Your task to perform on an android device: Go to Maps Image 0: 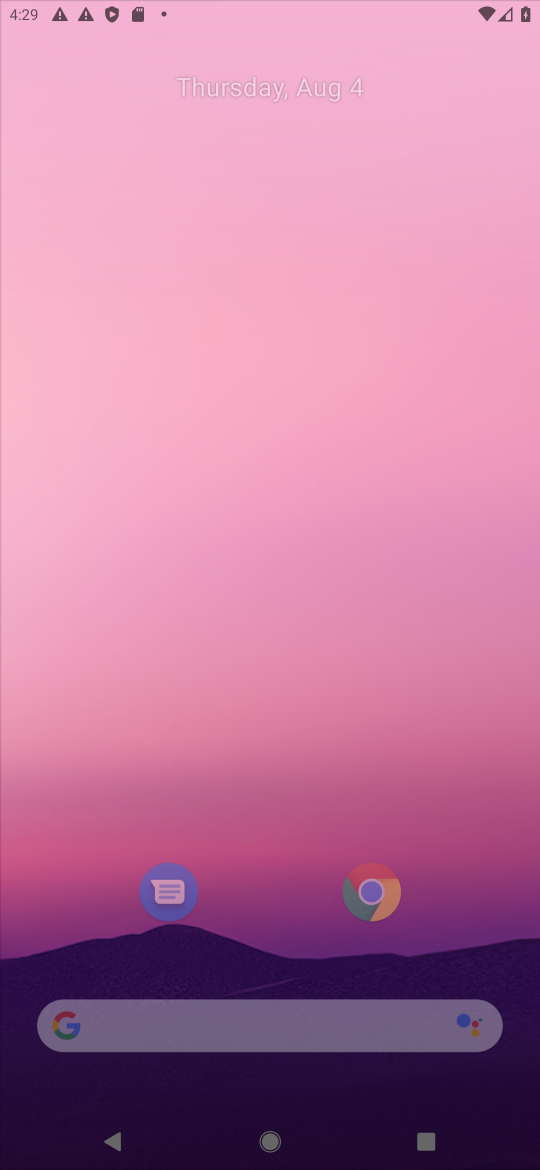
Step 0: press home button
Your task to perform on an android device: Go to Maps Image 1: 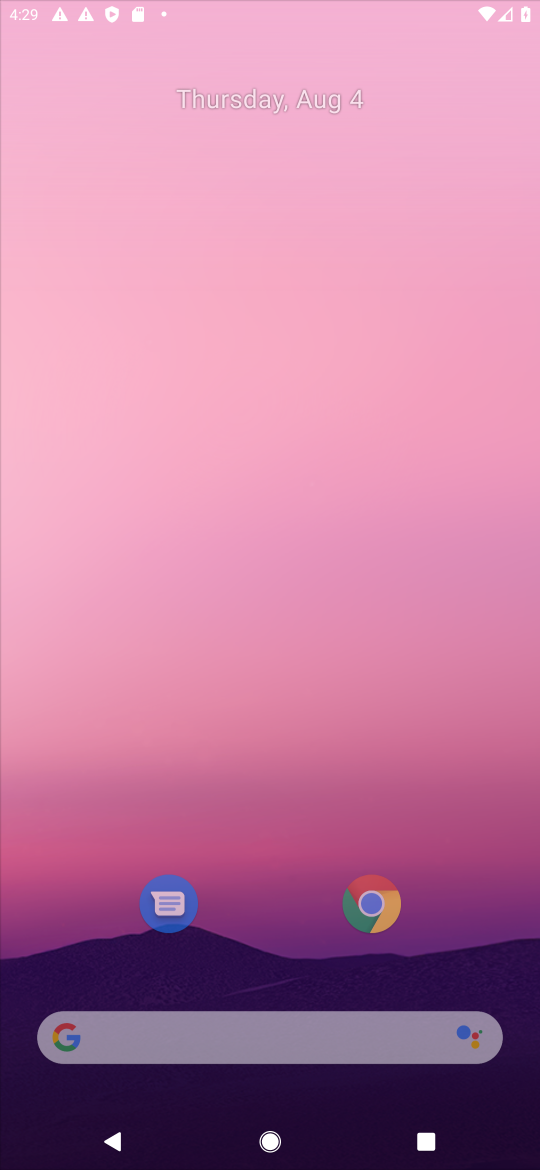
Step 1: press home button
Your task to perform on an android device: Go to Maps Image 2: 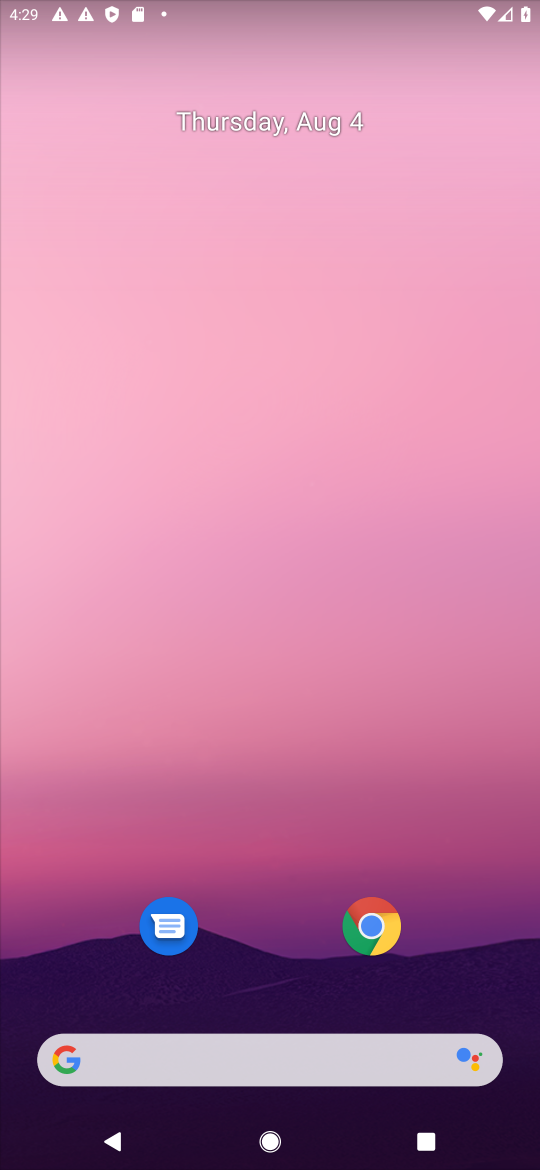
Step 2: drag from (260, 970) to (269, 235)
Your task to perform on an android device: Go to Maps Image 3: 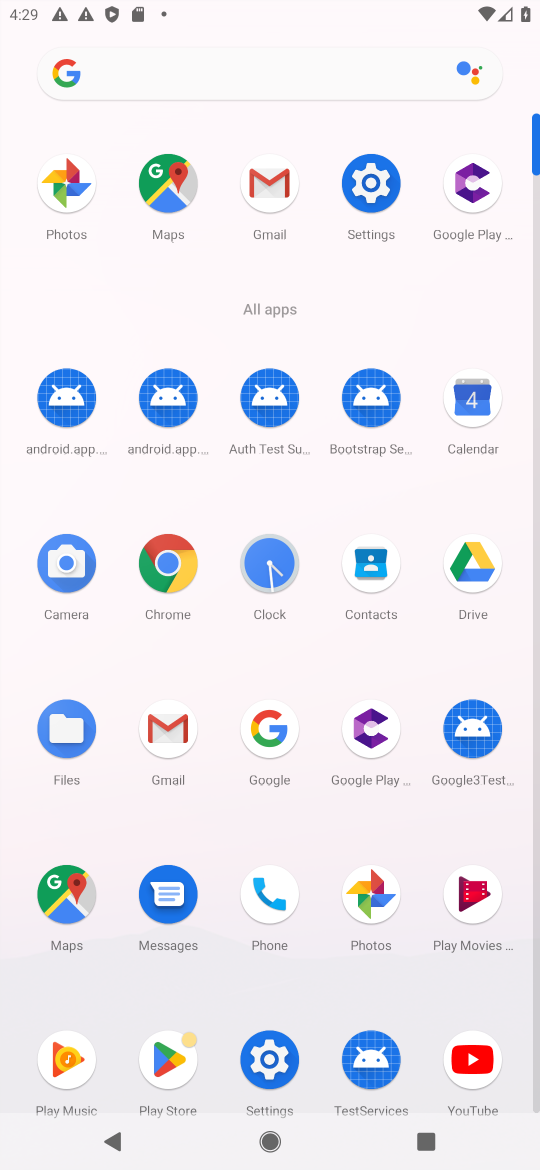
Step 3: click (57, 876)
Your task to perform on an android device: Go to Maps Image 4: 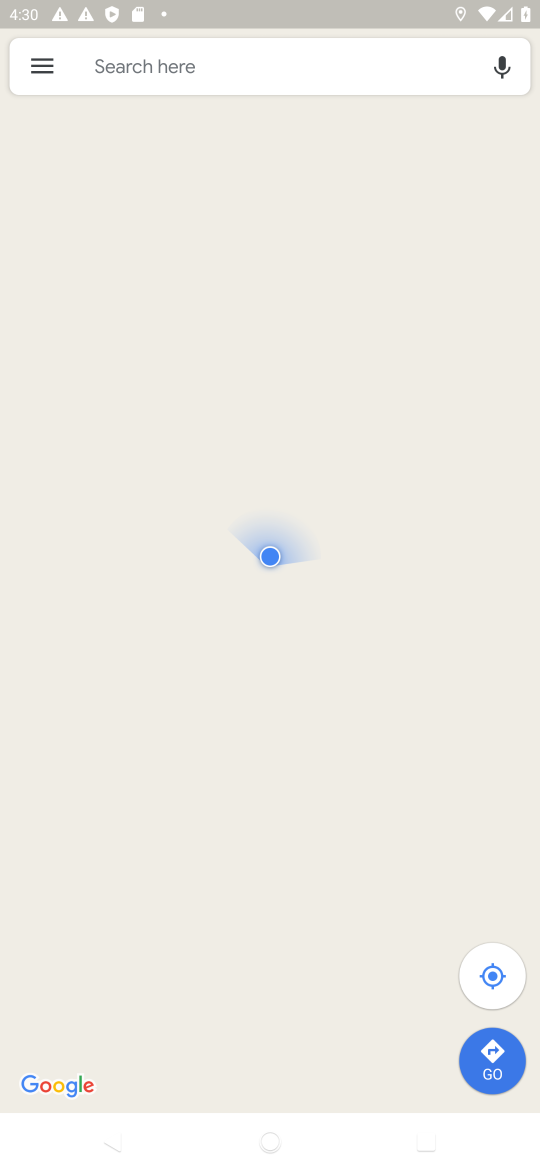
Step 4: task complete